Your task to perform on an android device: install app "Calculator" Image 0: 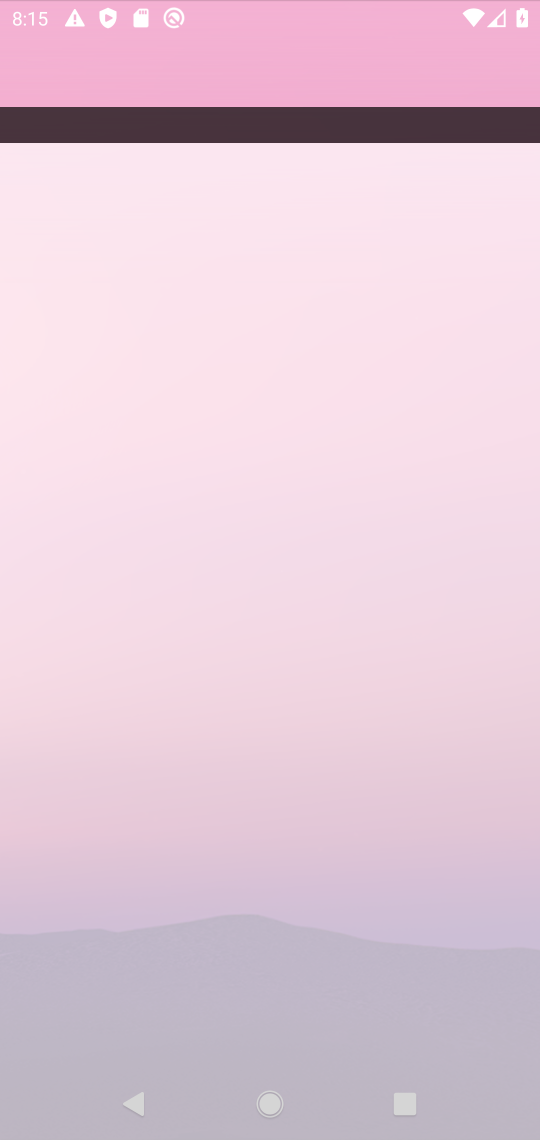
Step 0: press home button
Your task to perform on an android device: install app "Calculator" Image 1: 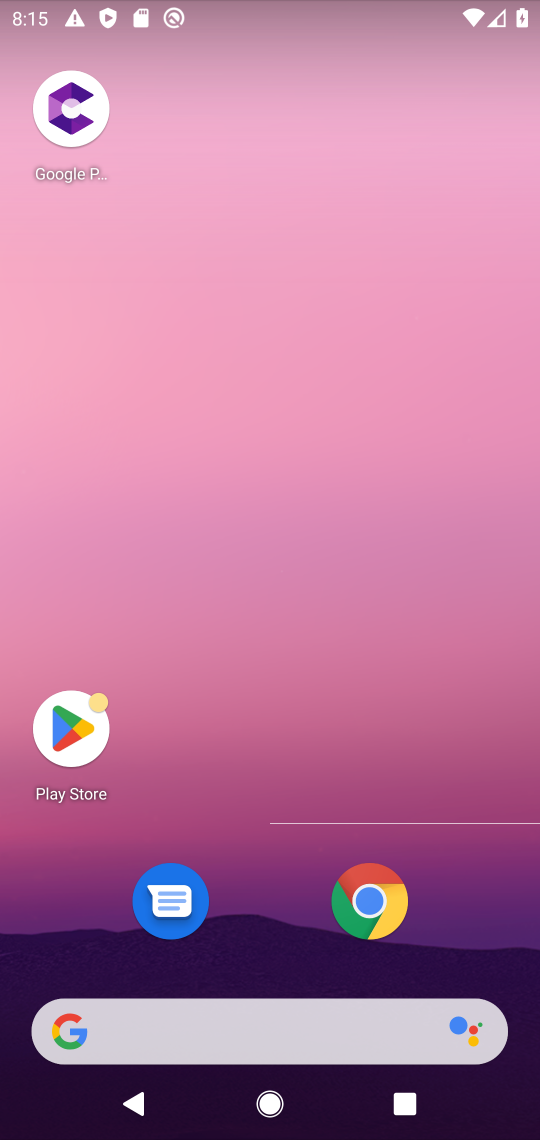
Step 1: click (70, 726)
Your task to perform on an android device: install app "Calculator" Image 2: 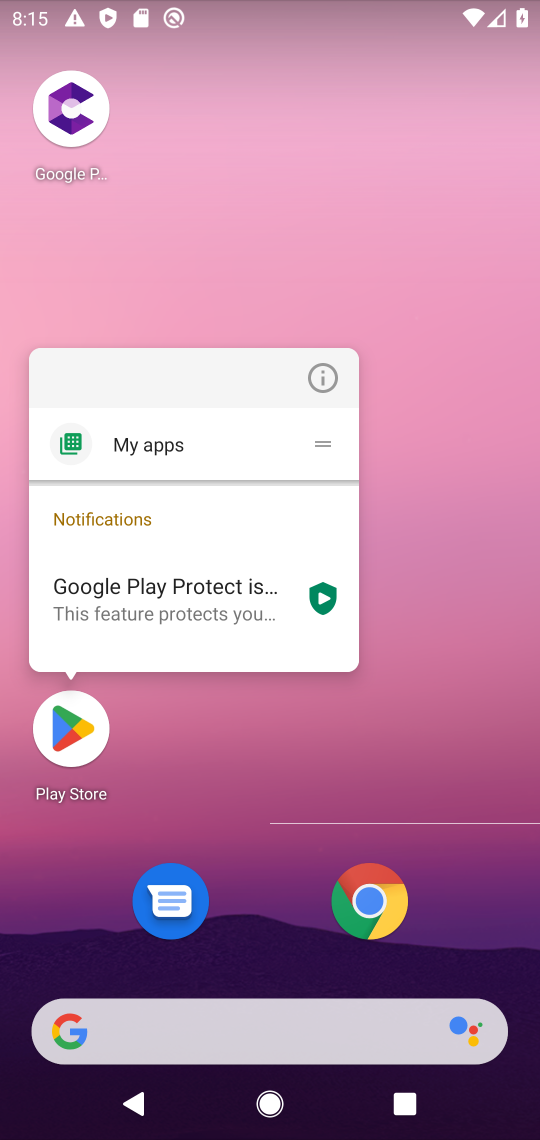
Step 2: click (66, 735)
Your task to perform on an android device: install app "Calculator" Image 3: 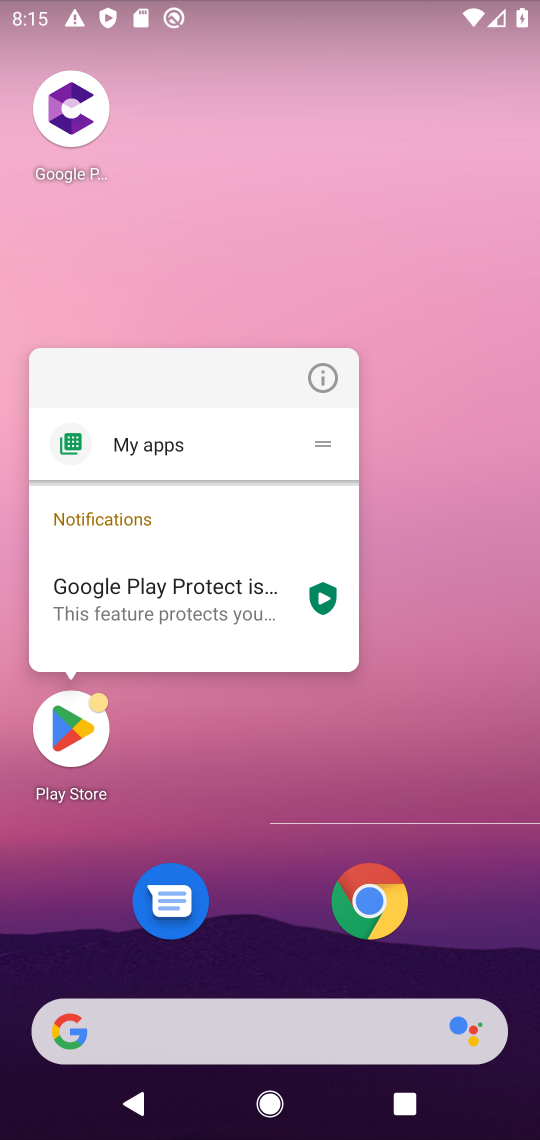
Step 3: click (66, 735)
Your task to perform on an android device: install app "Calculator" Image 4: 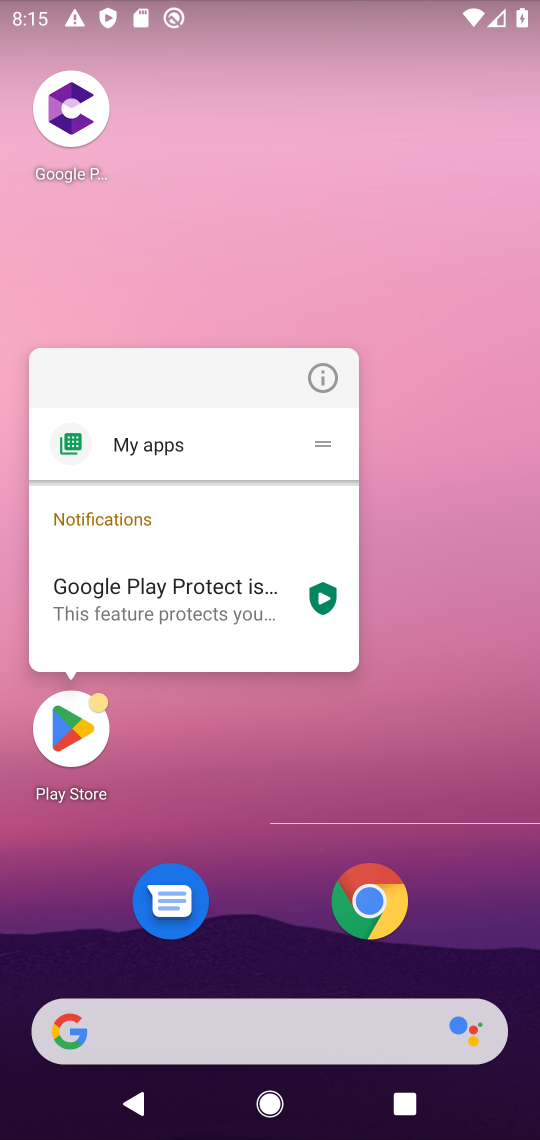
Step 4: click (66, 735)
Your task to perform on an android device: install app "Calculator" Image 5: 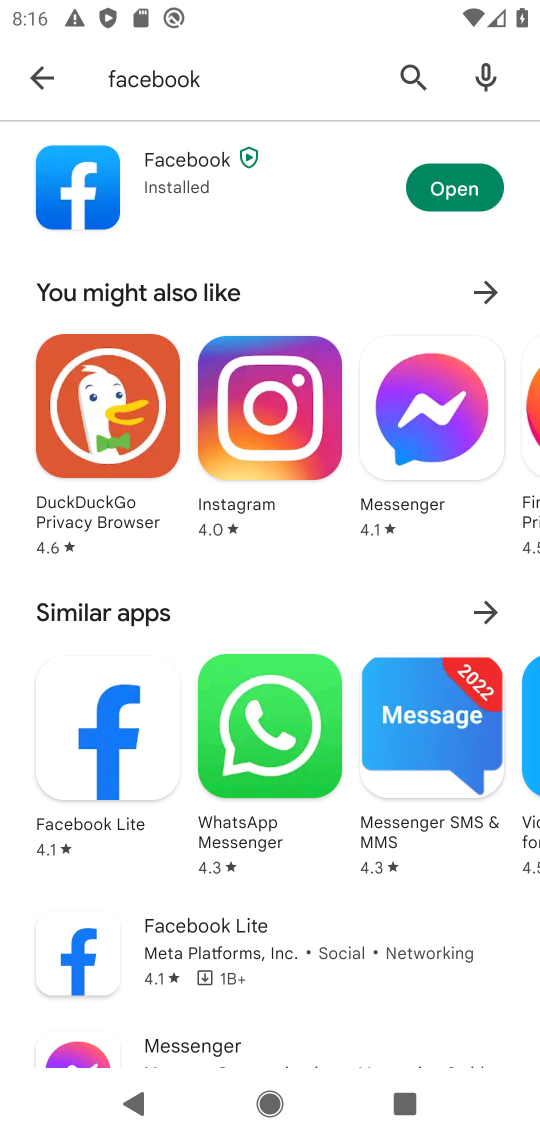
Step 5: click (409, 69)
Your task to perform on an android device: install app "Calculator" Image 6: 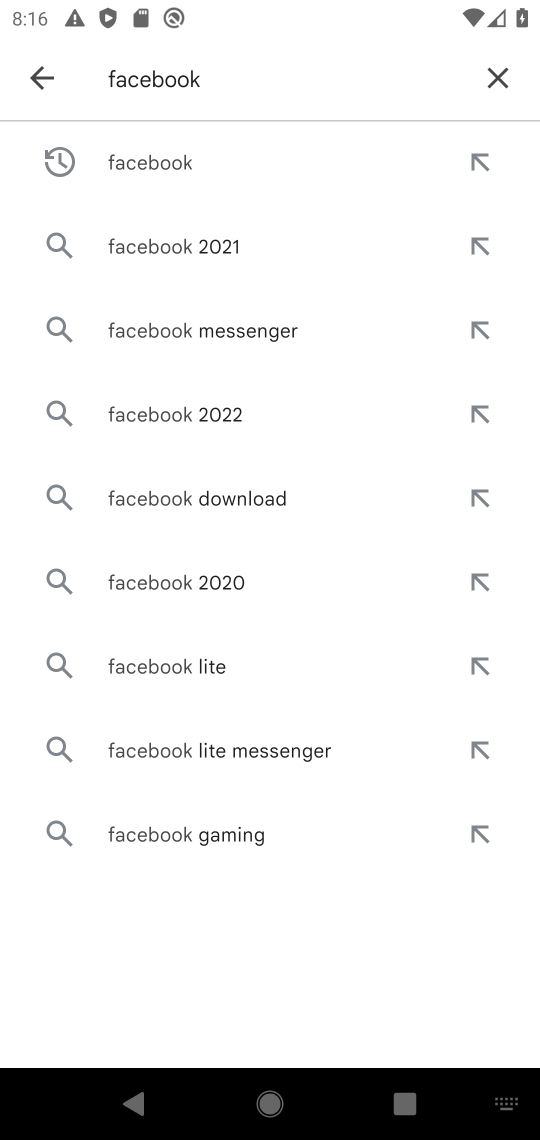
Step 6: click (511, 77)
Your task to perform on an android device: install app "Calculator" Image 7: 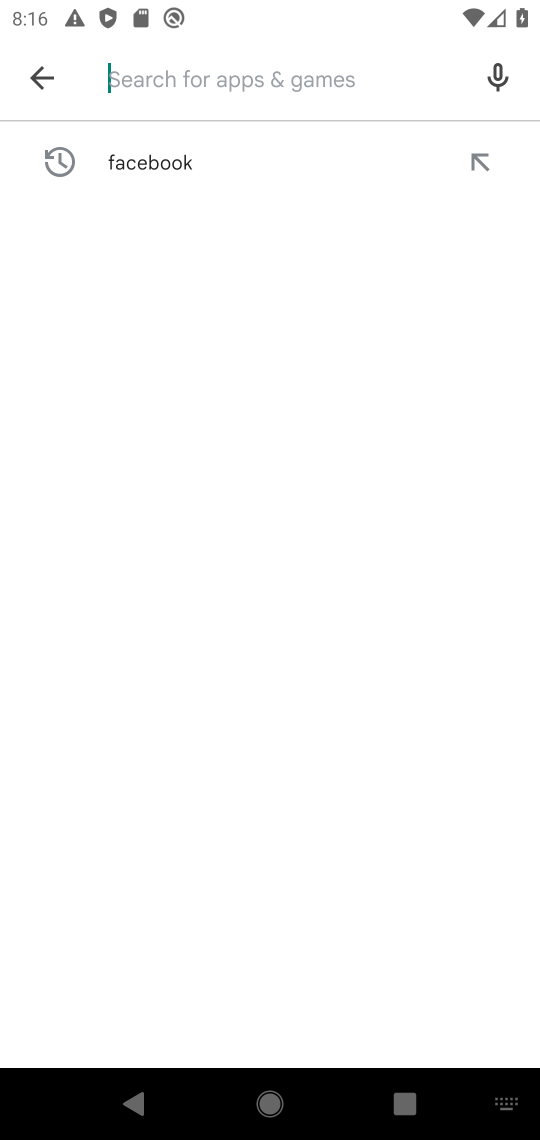
Step 7: type "Calculator"
Your task to perform on an android device: install app "Calculator" Image 8: 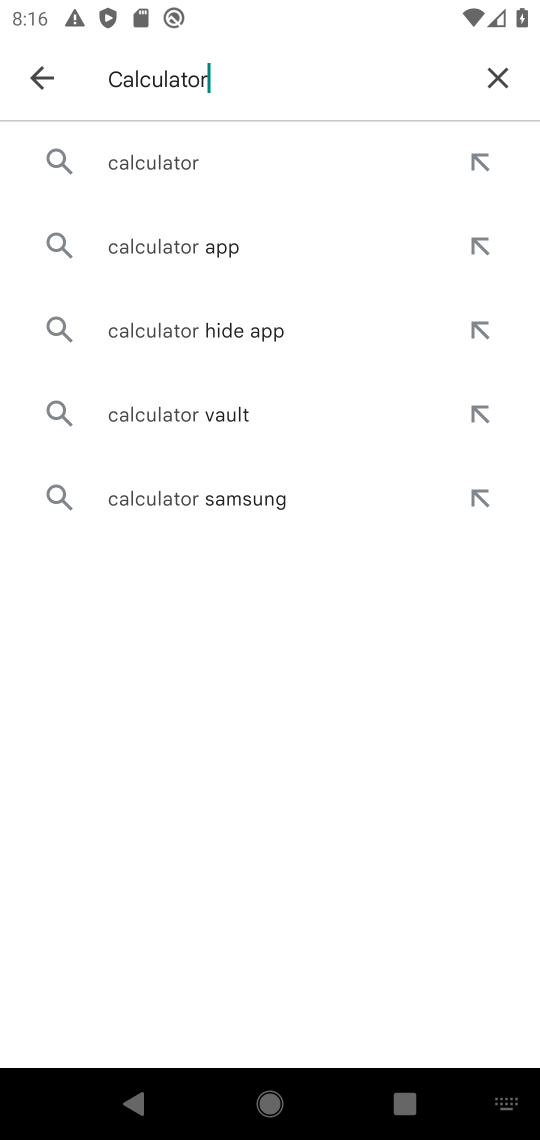
Step 8: click (162, 158)
Your task to perform on an android device: install app "Calculator" Image 9: 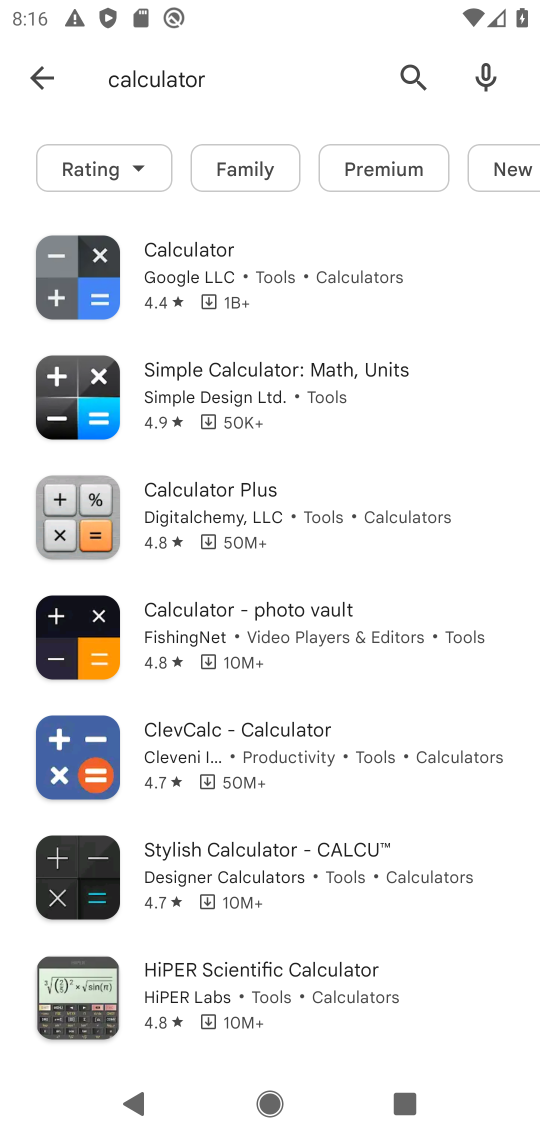
Step 9: click (99, 284)
Your task to perform on an android device: install app "Calculator" Image 10: 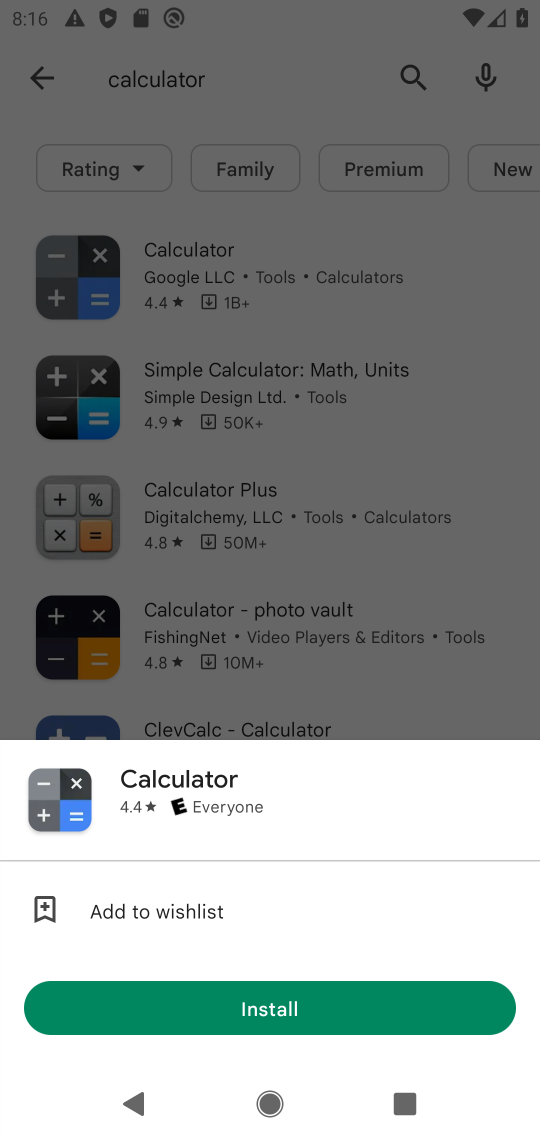
Step 10: click (312, 1006)
Your task to perform on an android device: install app "Calculator" Image 11: 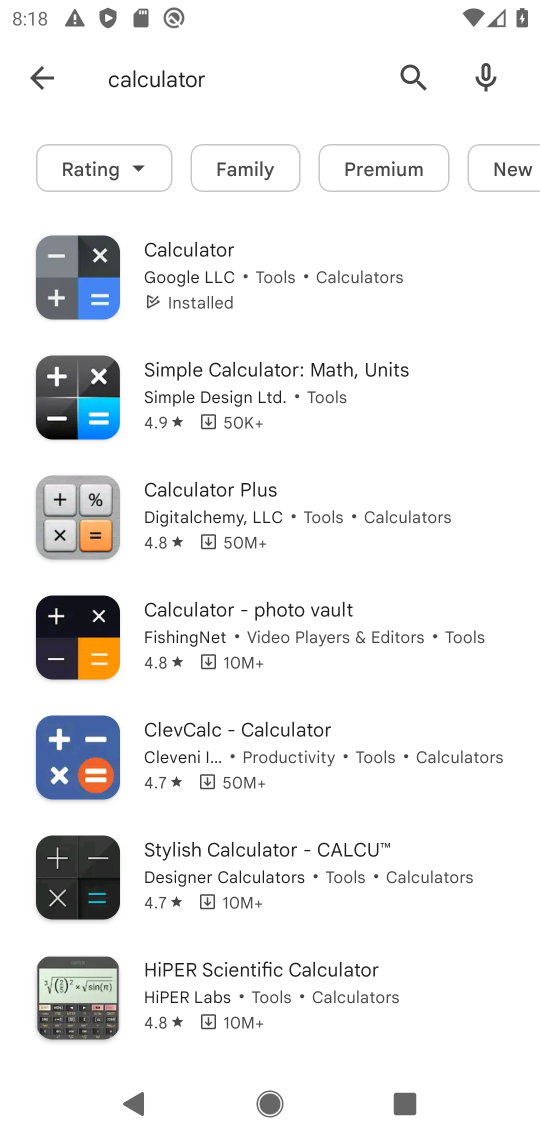
Step 11: task complete